Your task to perform on an android device: Go to sound settings Image 0: 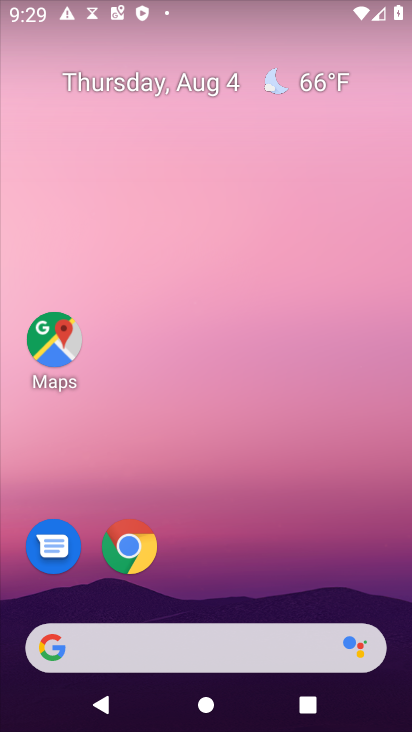
Step 0: press home button
Your task to perform on an android device: Go to sound settings Image 1: 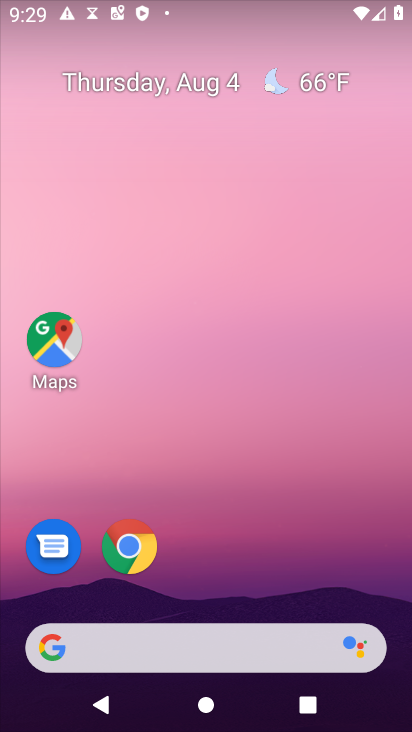
Step 1: drag from (239, 617) to (287, 109)
Your task to perform on an android device: Go to sound settings Image 2: 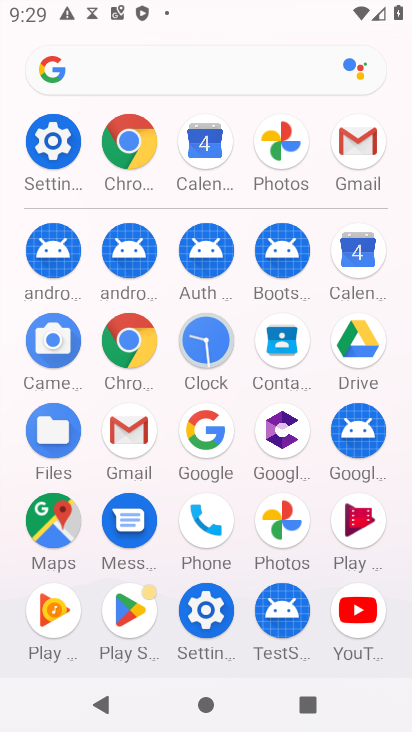
Step 2: click (49, 133)
Your task to perform on an android device: Go to sound settings Image 3: 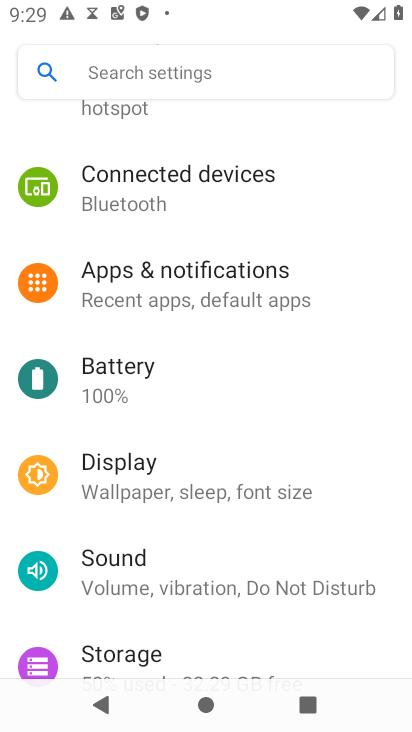
Step 3: click (147, 579)
Your task to perform on an android device: Go to sound settings Image 4: 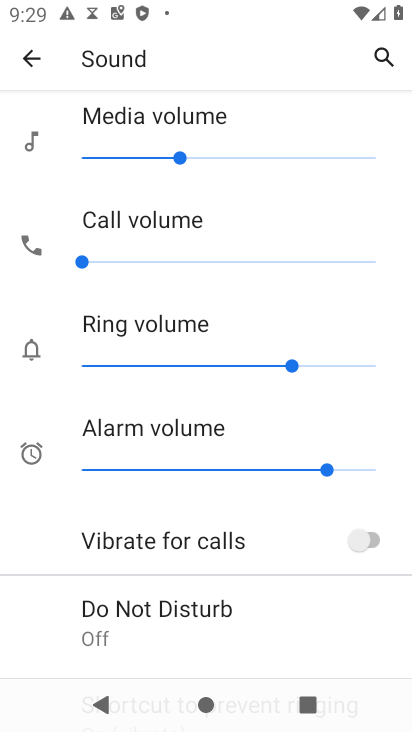
Step 4: task complete